Your task to perform on an android device: turn smart compose on in the gmail app Image 0: 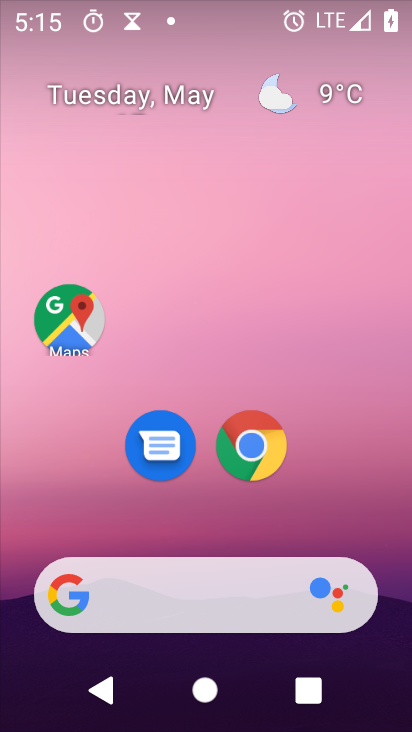
Step 0: drag from (294, 592) to (269, 90)
Your task to perform on an android device: turn smart compose on in the gmail app Image 1: 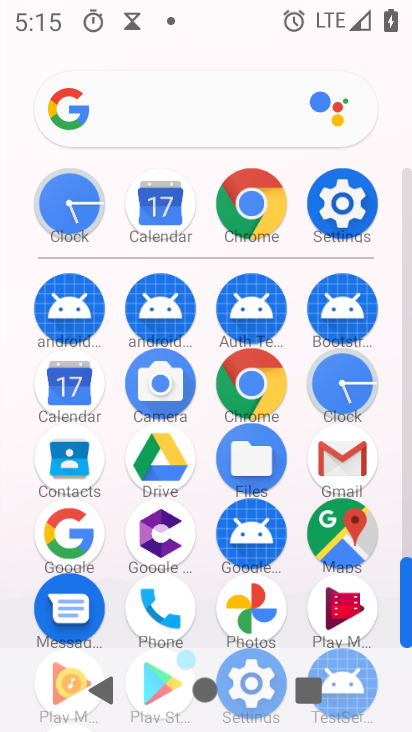
Step 1: click (351, 455)
Your task to perform on an android device: turn smart compose on in the gmail app Image 2: 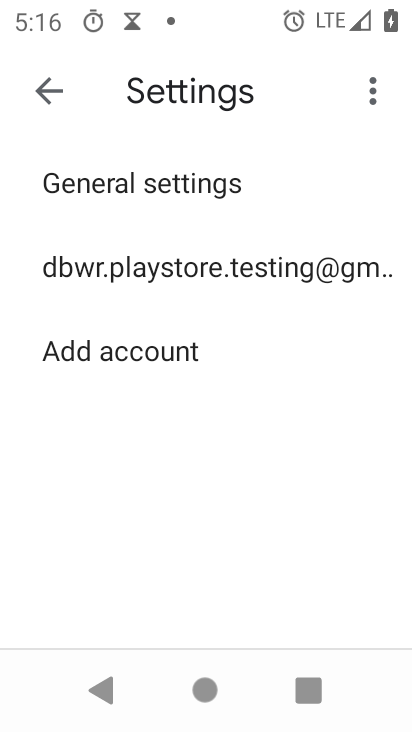
Step 2: press back button
Your task to perform on an android device: turn smart compose on in the gmail app Image 3: 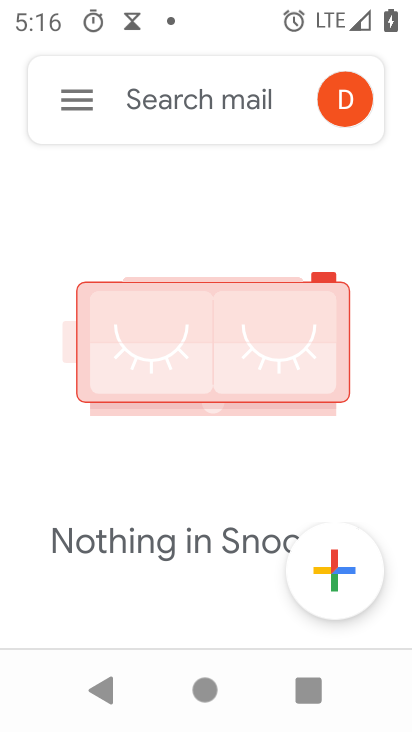
Step 3: click (80, 105)
Your task to perform on an android device: turn smart compose on in the gmail app Image 4: 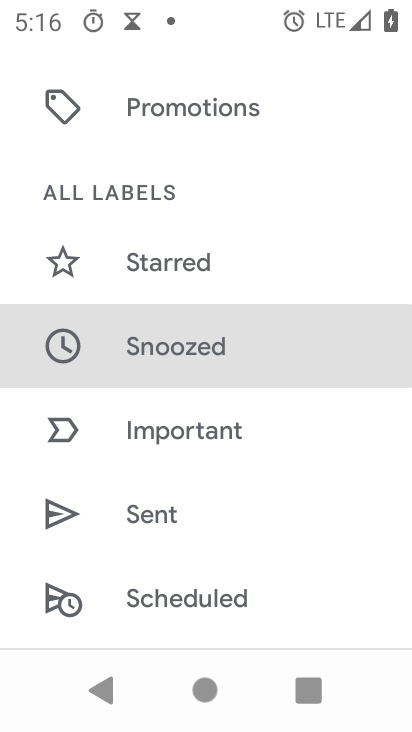
Step 4: drag from (165, 583) to (207, 1)
Your task to perform on an android device: turn smart compose on in the gmail app Image 5: 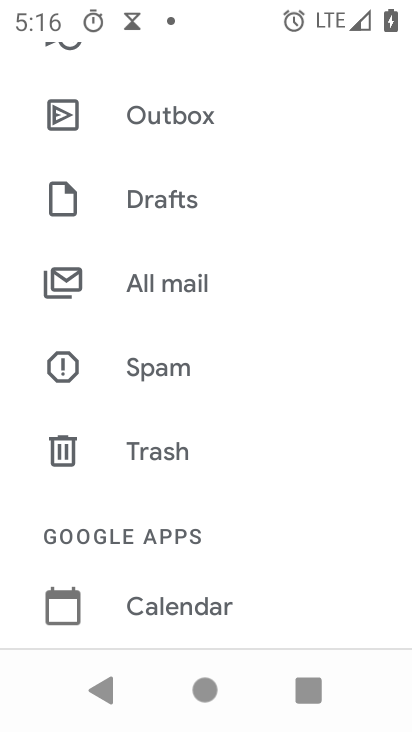
Step 5: drag from (220, 614) to (225, 236)
Your task to perform on an android device: turn smart compose on in the gmail app Image 6: 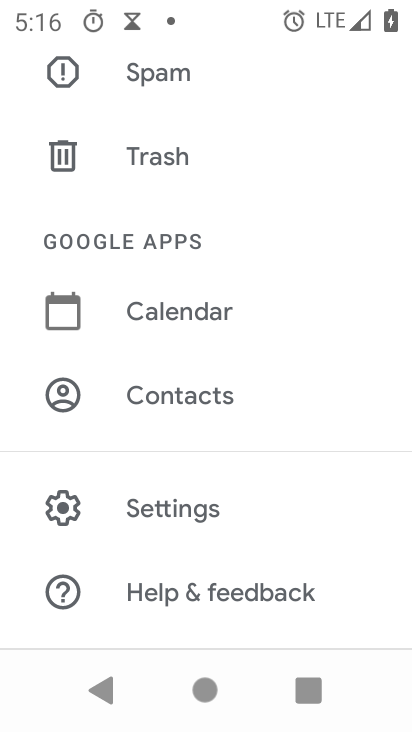
Step 6: click (225, 507)
Your task to perform on an android device: turn smart compose on in the gmail app Image 7: 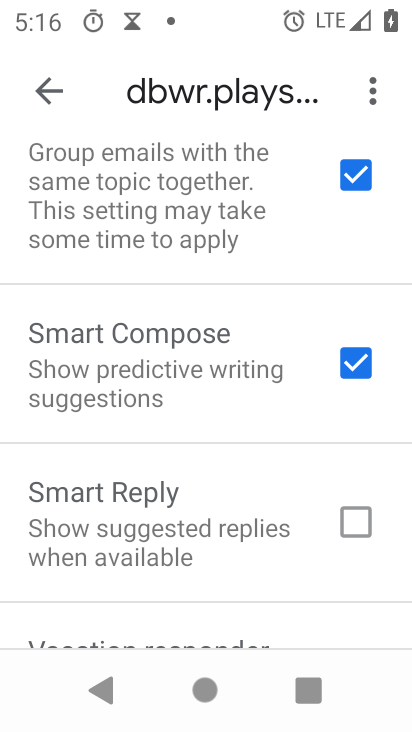
Step 7: task complete